Your task to perform on an android device: Open display settings Image 0: 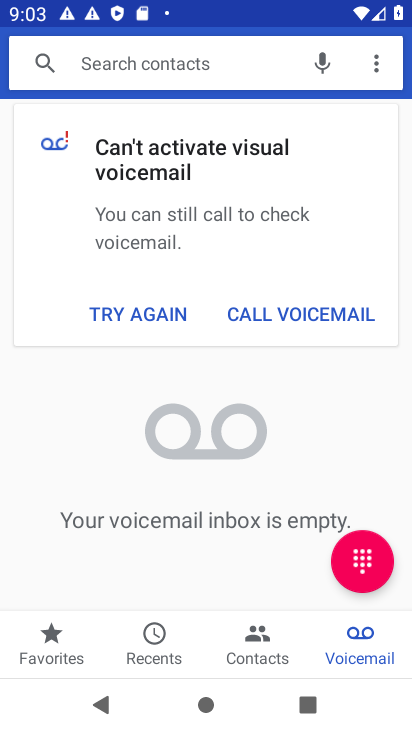
Step 0: press home button
Your task to perform on an android device: Open display settings Image 1: 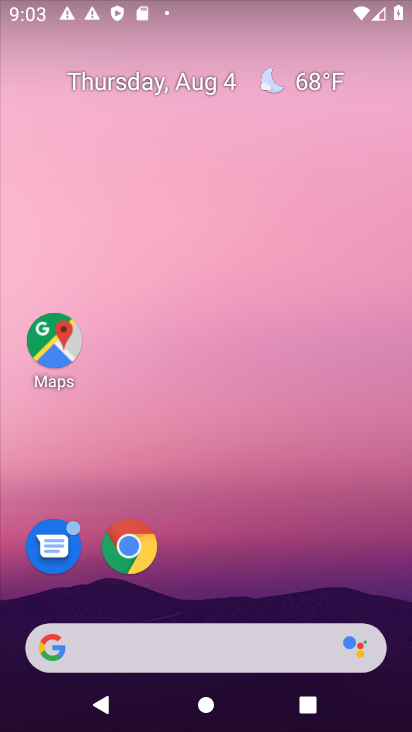
Step 1: drag from (240, 606) to (287, 106)
Your task to perform on an android device: Open display settings Image 2: 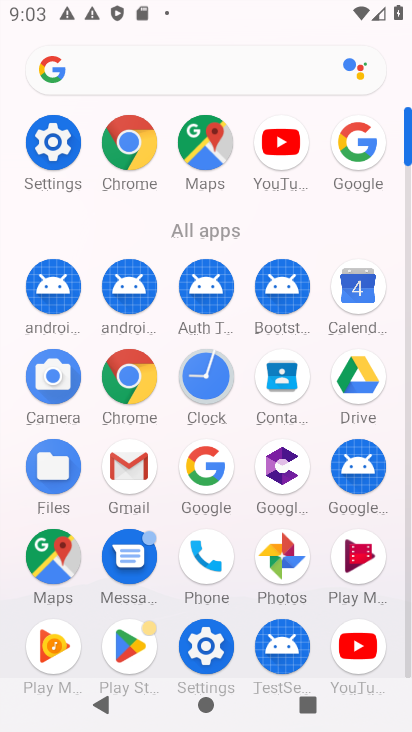
Step 2: click (54, 137)
Your task to perform on an android device: Open display settings Image 3: 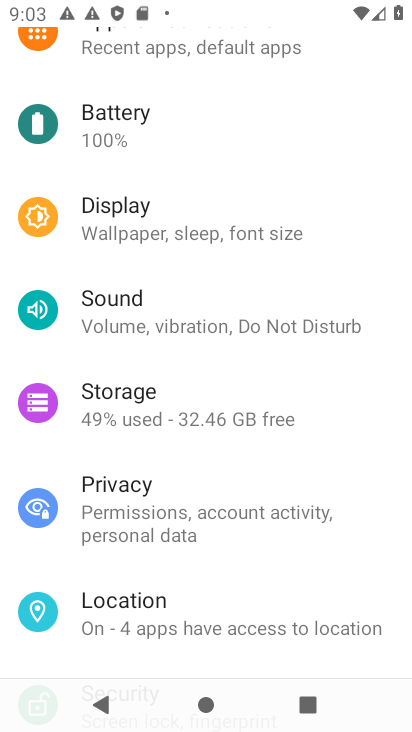
Step 3: click (110, 209)
Your task to perform on an android device: Open display settings Image 4: 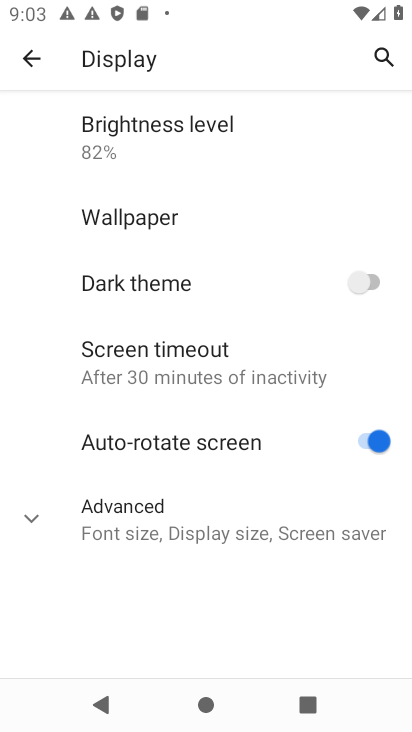
Step 4: task complete